Your task to perform on an android device: Show me the alarms in the clock app Image 0: 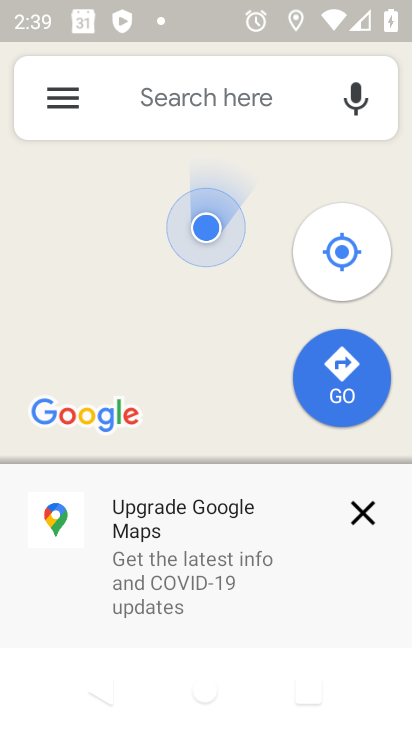
Step 0: press home button
Your task to perform on an android device: Show me the alarms in the clock app Image 1: 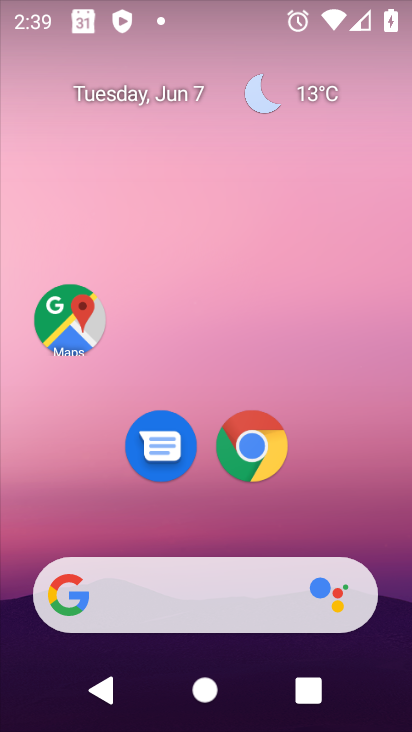
Step 1: drag from (391, 598) to (359, 127)
Your task to perform on an android device: Show me the alarms in the clock app Image 2: 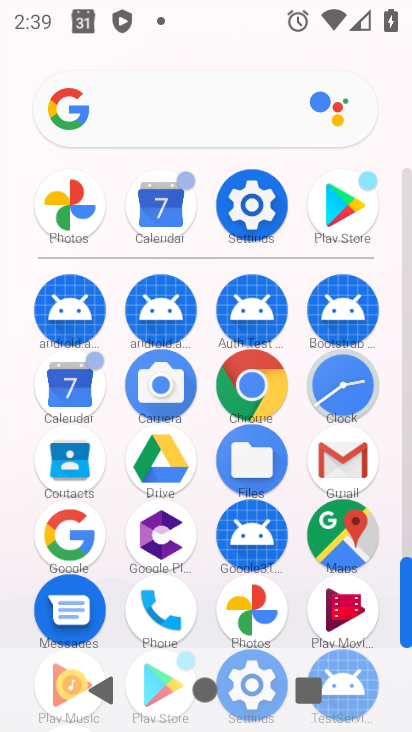
Step 2: click (347, 382)
Your task to perform on an android device: Show me the alarms in the clock app Image 3: 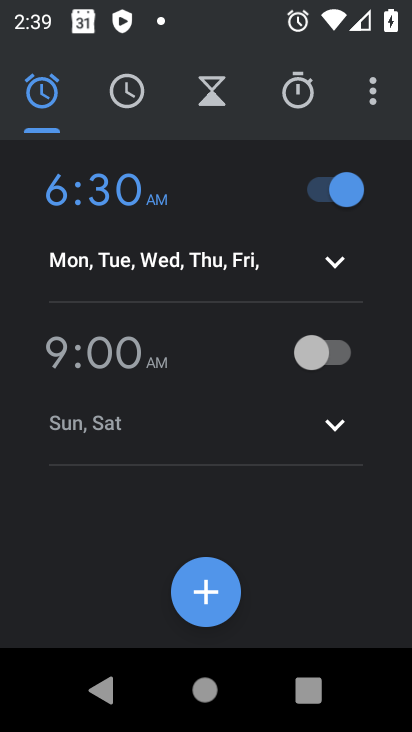
Step 3: task complete